Your task to perform on an android device: toggle sleep mode Image 0: 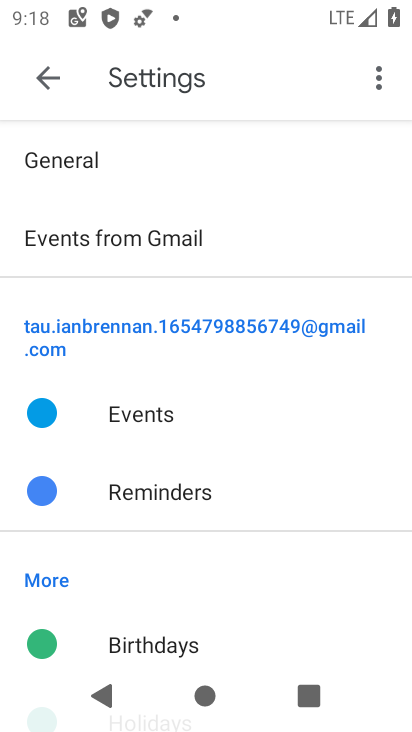
Step 0: press home button
Your task to perform on an android device: toggle sleep mode Image 1: 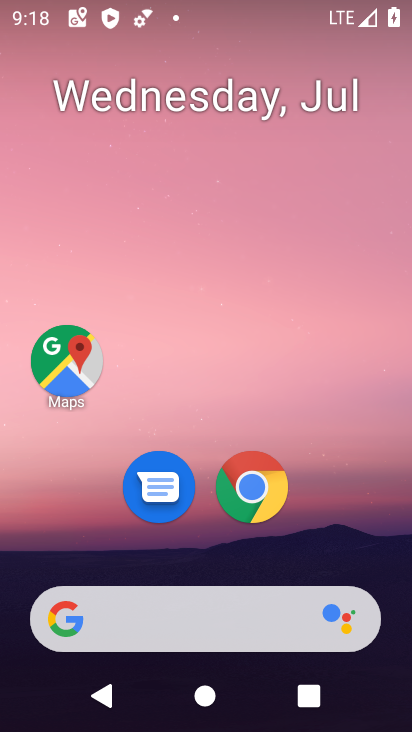
Step 1: drag from (237, 562) to (189, 2)
Your task to perform on an android device: toggle sleep mode Image 2: 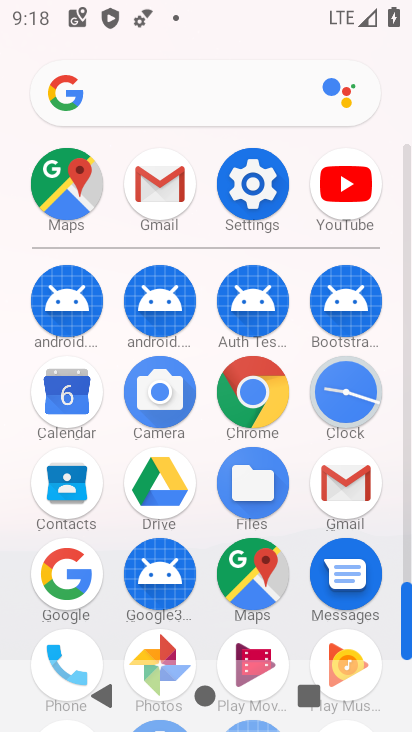
Step 2: click (250, 183)
Your task to perform on an android device: toggle sleep mode Image 3: 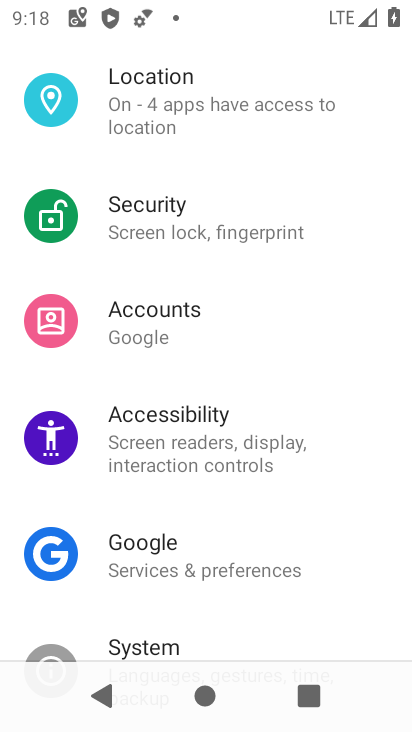
Step 3: drag from (250, 183) to (228, 470)
Your task to perform on an android device: toggle sleep mode Image 4: 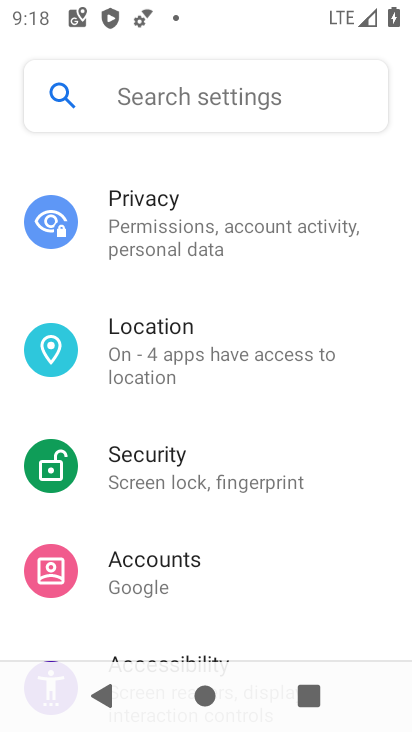
Step 4: drag from (170, 241) to (183, 573)
Your task to perform on an android device: toggle sleep mode Image 5: 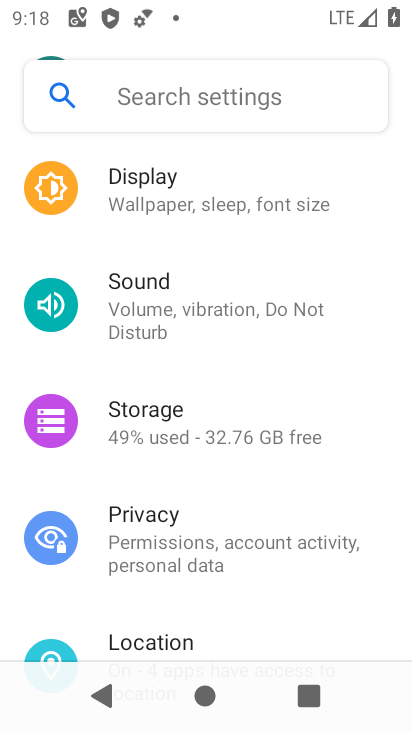
Step 5: click (169, 177)
Your task to perform on an android device: toggle sleep mode Image 6: 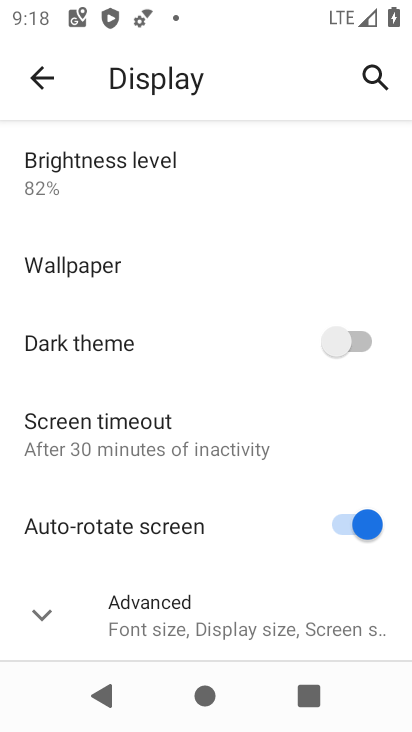
Step 6: click (176, 609)
Your task to perform on an android device: toggle sleep mode Image 7: 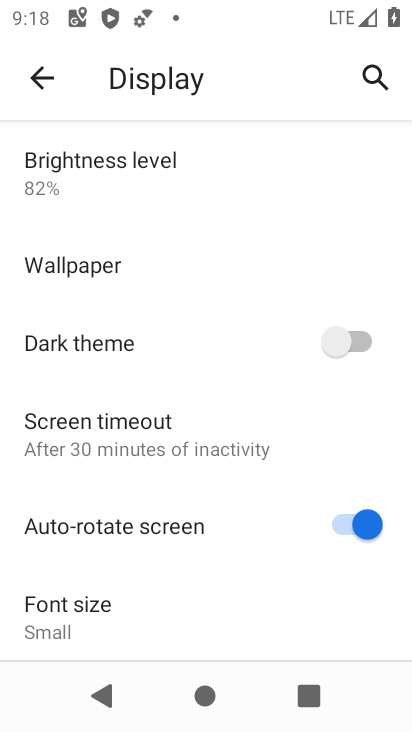
Step 7: task complete